Your task to perform on an android device: Do I have any events tomorrow? Image 0: 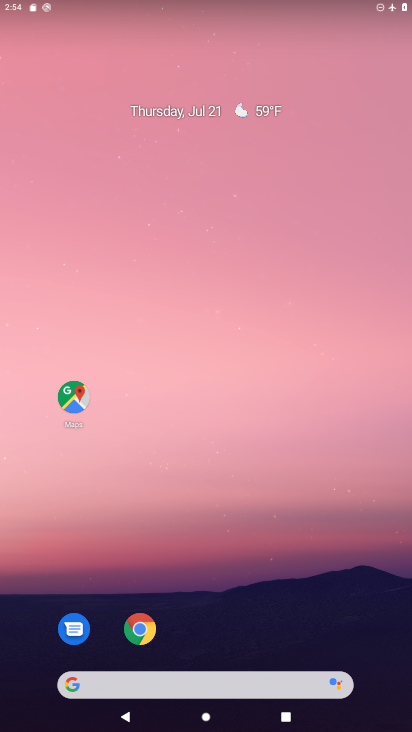
Step 0: drag from (228, 726) to (222, 111)
Your task to perform on an android device: Do I have any events tomorrow? Image 1: 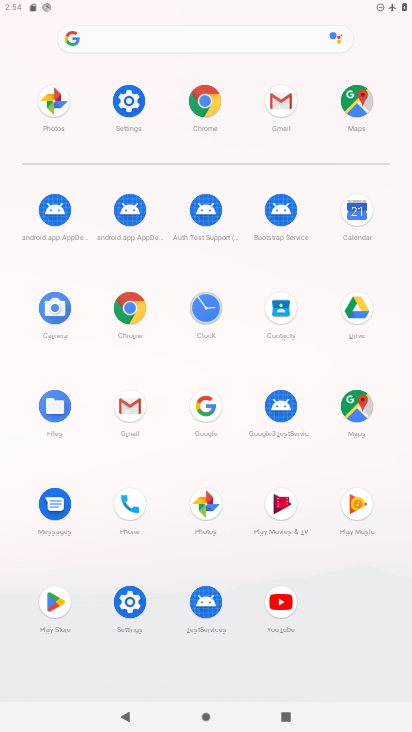
Step 1: click (359, 213)
Your task to perform on an android device: Do I have any events tomorrow? Image 2: 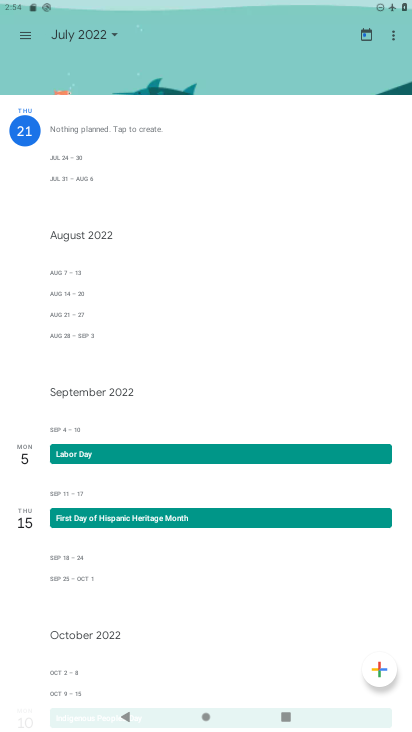
Step 2: click (116, 30)
Your task to perform on an android device: Do I have any events tomorrow? Image 3: 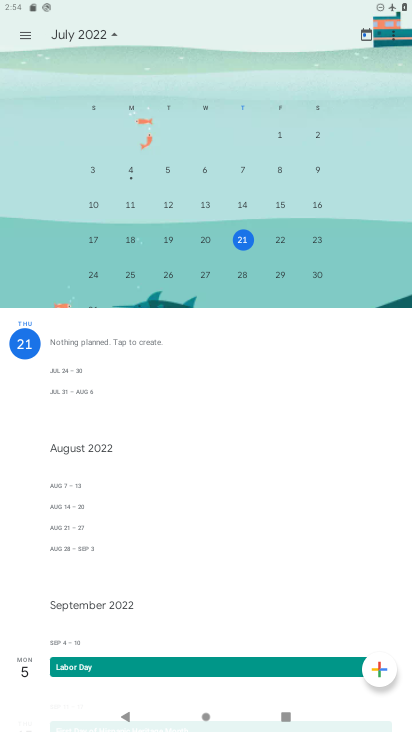
Step 3: click (280, 238)
Your task to perform on an android device: Do I have any events tomorrow? Image 4: 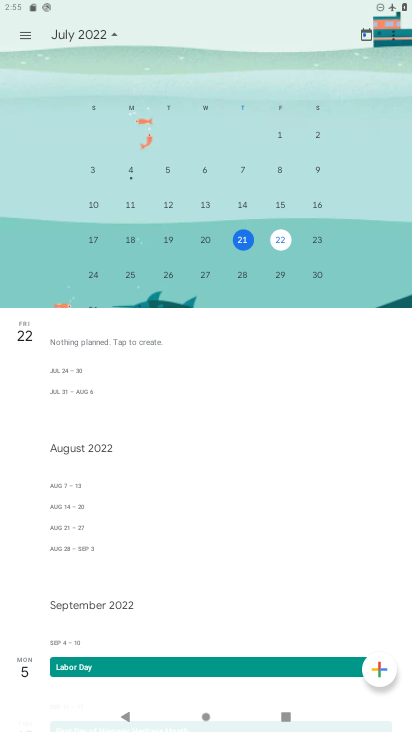
Step 4: click (280, 238)
Your task to perform on an android device: Do I have any events tomorrow? Image 5: 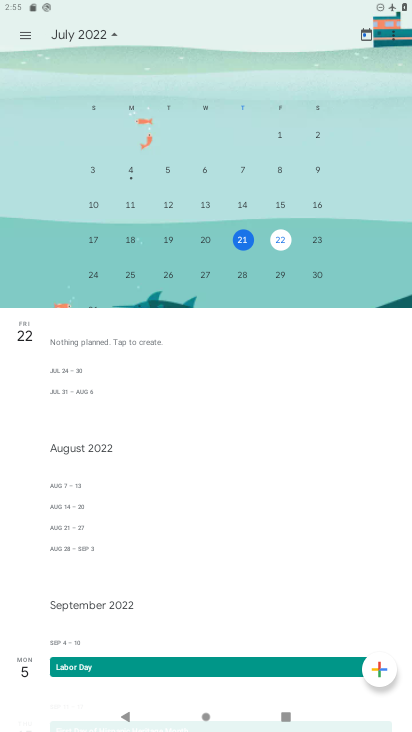
Step 5: task complete